Your task to perform on an android device: Open notification settings Image 0: 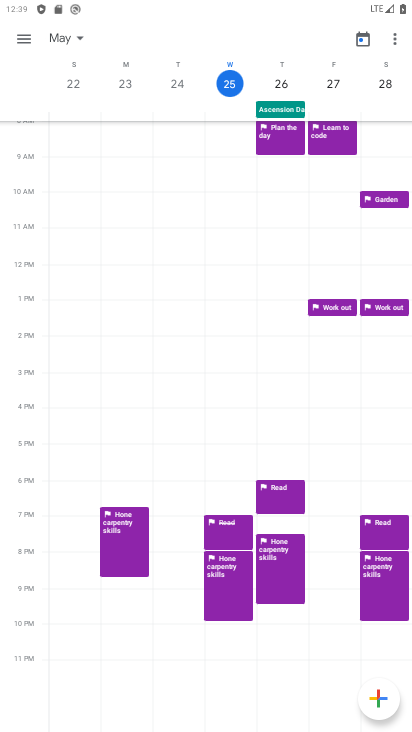
Step 0: click (169, 699)
Your task to perform on an android device: Open notification settings Image 1: 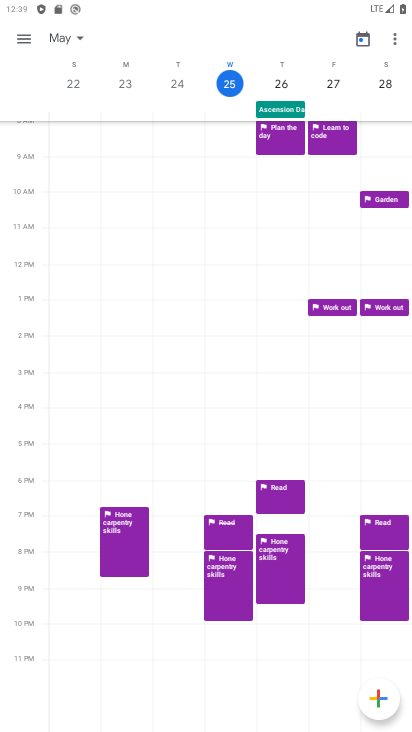
Step 1: press home button
Your task to perform on an android device: Open notification settings Image 2: 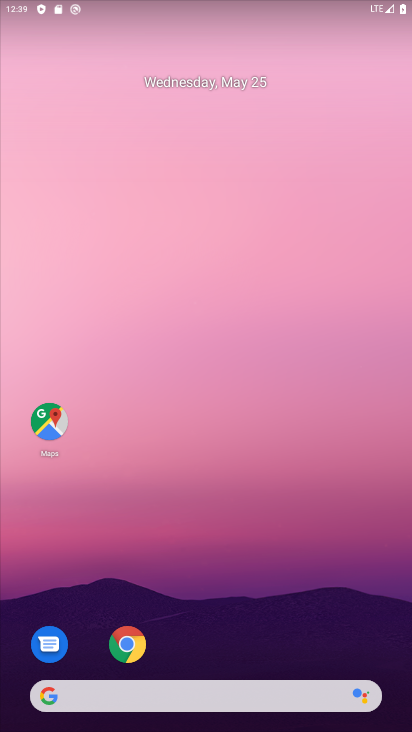
Step 2: drag from (204, 553) to (120, 34)
Your task to perform on an android device: Open notification settings Image 3: 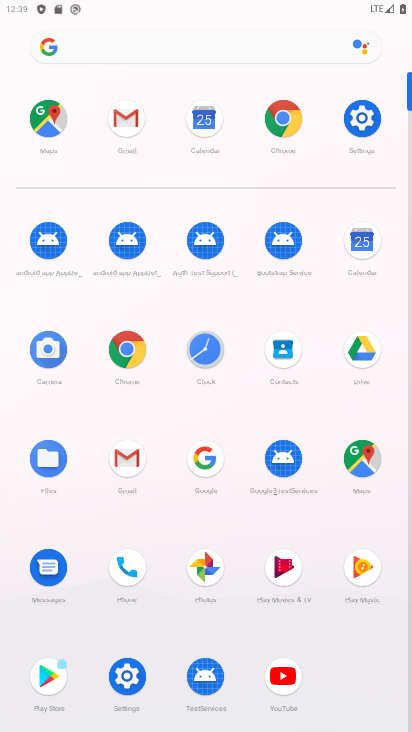
Step 3: click (361, 114)
Your task to perform on an android device: Open notification settings Image 4: 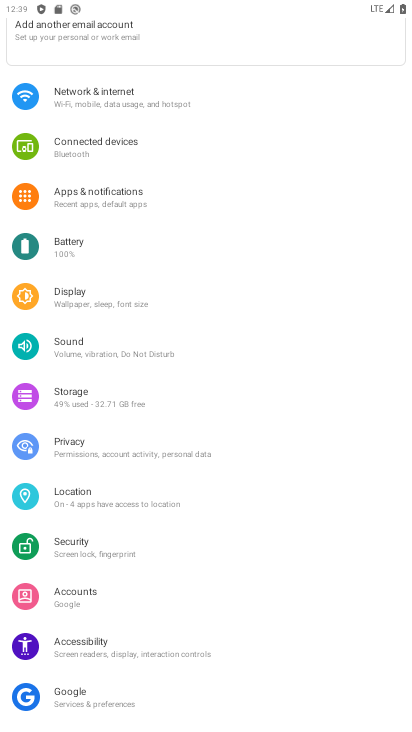
Step 4: click (110, 199)
Your task to perform on an android device: Open notification settings Image 5: 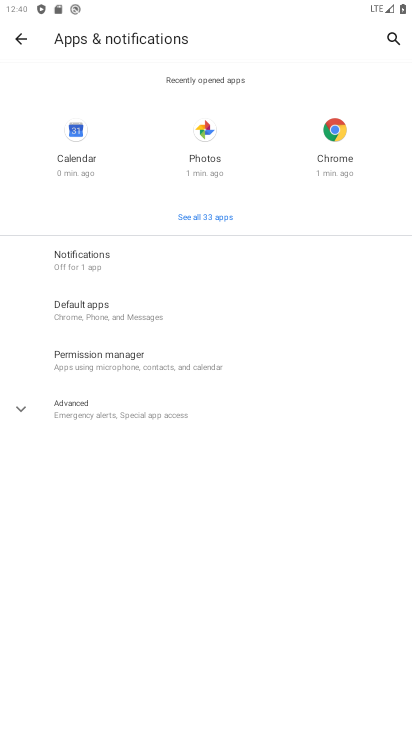
Step 5: task complete